Your task to perform on an android device: Go to calendar. Show me events next week Image 0: 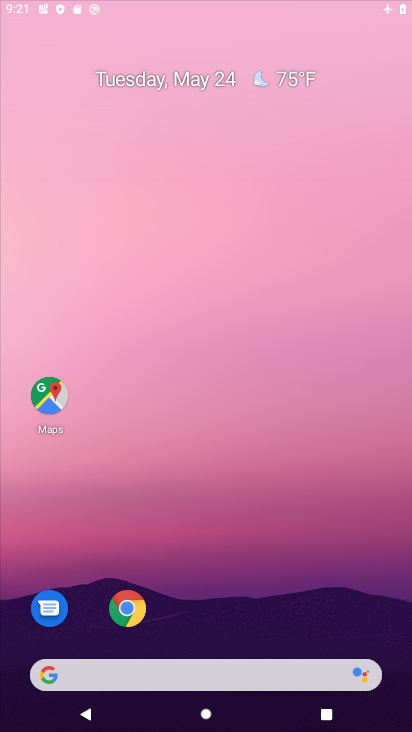
Step 0: drag from (258, 567) to (239, 169)
Your task to perform on an android device: Go to calendar. Show me events next week Image 1: 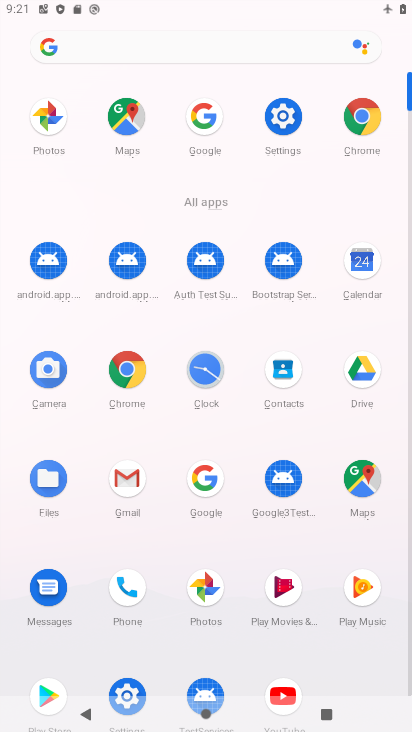
Step 1: click (355, 264)
Your task to perform on an android device: Go to calendar. Show me events next week Image 2: 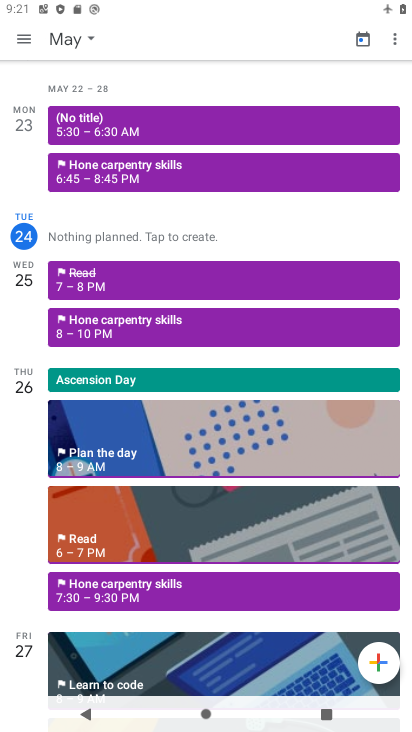
Step 2: click (28, 36)
Your task to perform on an android device: Go to calendar. Show me events next week Image 3: 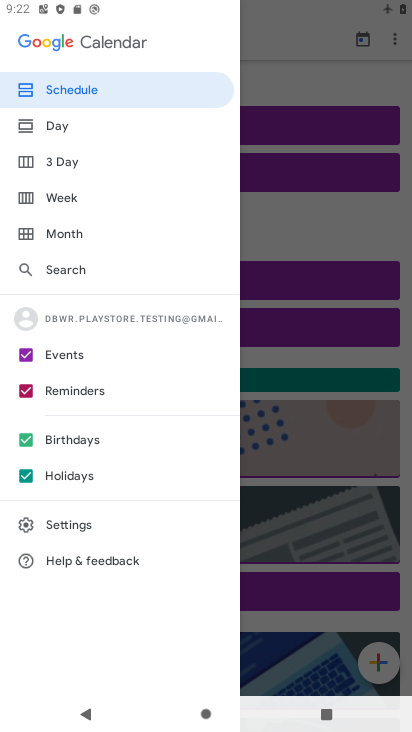
Step 3: click (69, 205)
Your task to perform on an android device: Go to calendar. Show me events next week Image 4: 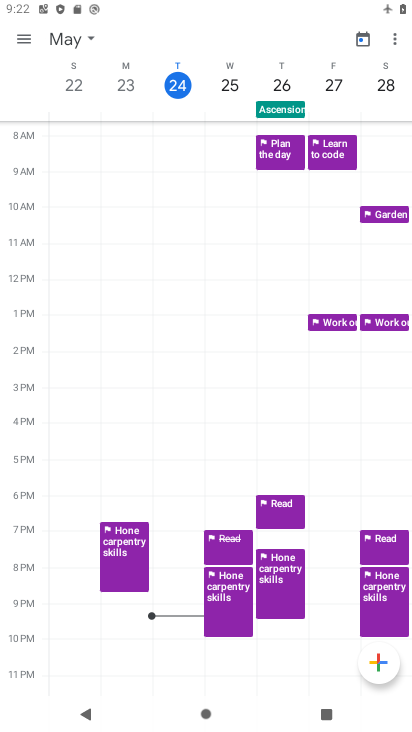
Step 4: drag from (26, 457) to (14, 154)
Your task to perform on an android device: Go to calendar. Show me events next week Image 5: 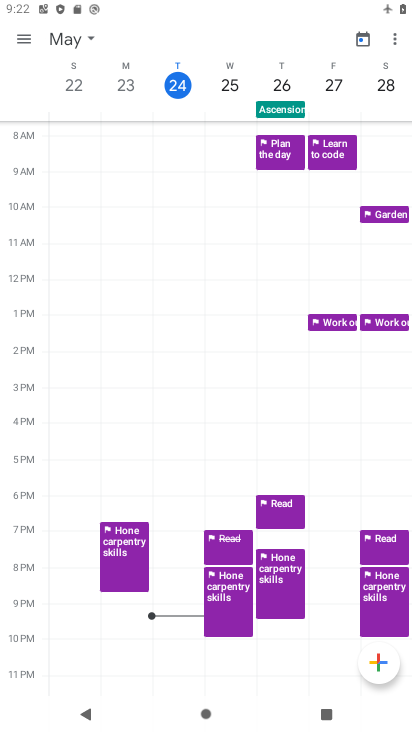
Step 5: drag from (24, 375) to (17, 180)
Your task to perform on an android device: Go to calendar. Show me events next week Image 6: 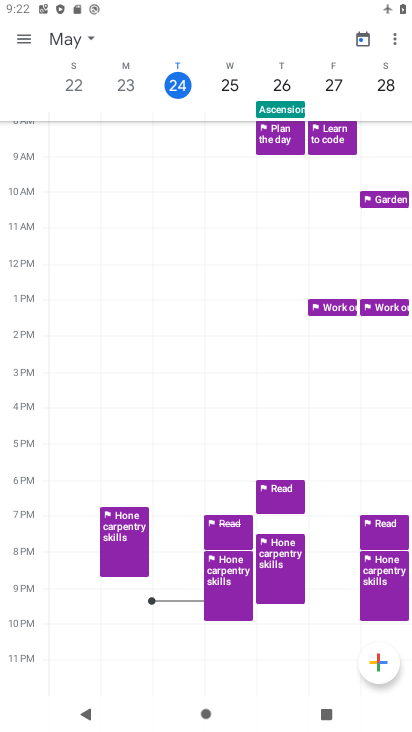
Step 6: click (20, 509)
Your task to perform on an android device: Go to calendar. Show me events next week Image 7: 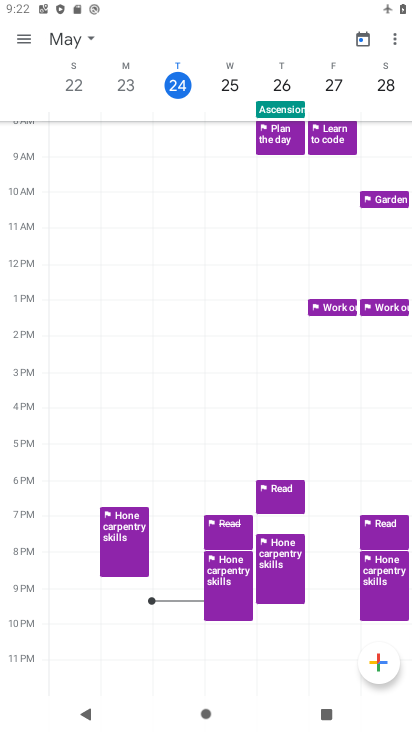
Step 7: click (77, 31)
Your task to perform on an android device: Go to calendar. Show me events next week Image 8: 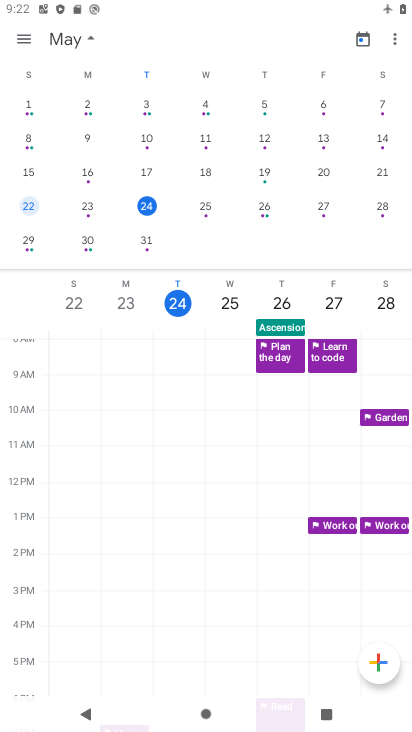
Step 8: click (30, 237)
Your task to perform on an android device: Go to calendar. Show me events next week Image 9: 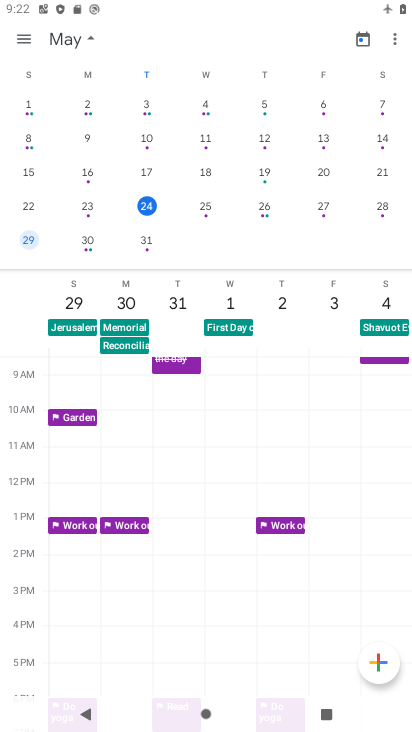
Step 9: task complete